Your task to perform on an android device: turn off translation in the chrome app Image 0: 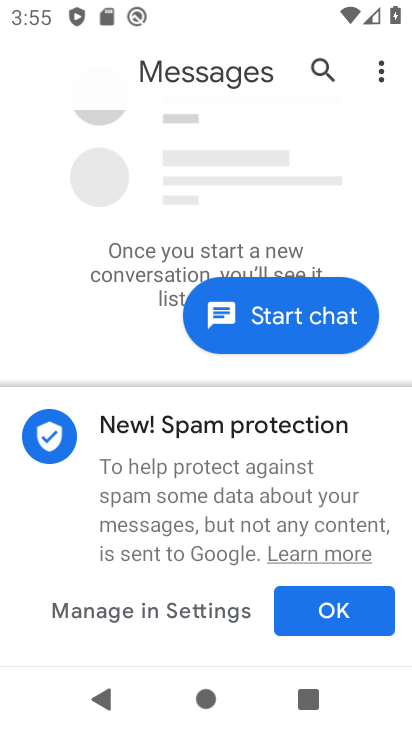
Step 0: press home button
Your task to perform on an android device: turn off translation in the chrome app Image 1: 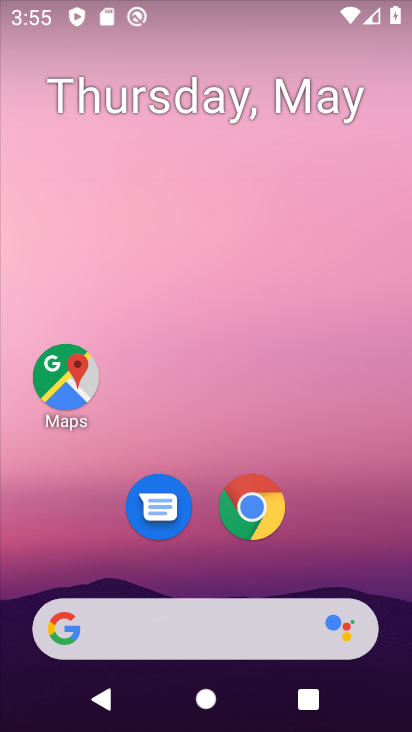
Step 1: click (258, 510)
Your task to perform on an android device: turn off translation in the chrome app Image 2: 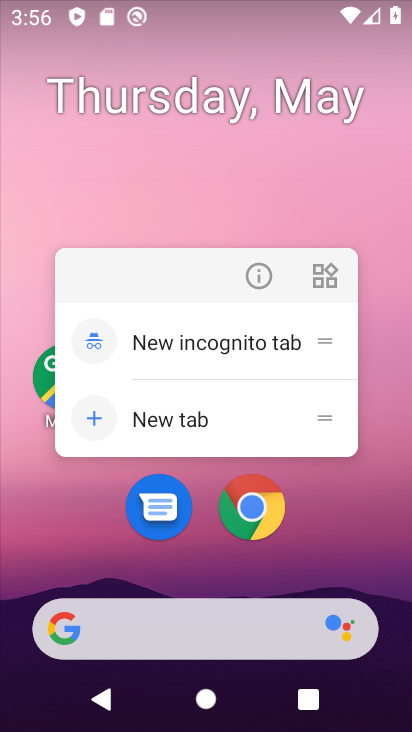
Step 2: click (248, 499)
Your task to perform on an android device: turn off translation in the chrome app Image 3: 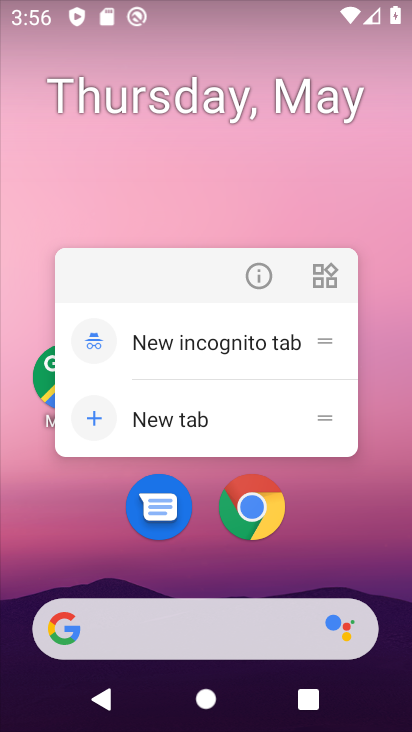
Step 3: click (248, 496)
Your task to perform on an android device: turn off translation in the chrome app Image 4: 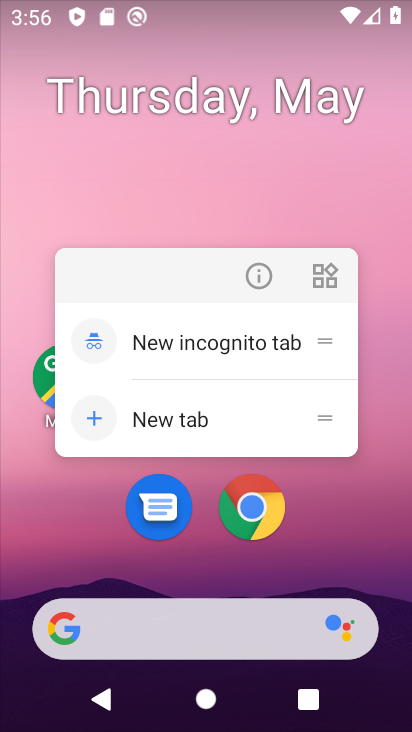
Step 4: click (245, 506)
Your task to perform on an android device: turn off translation in the chrome app Image 5: 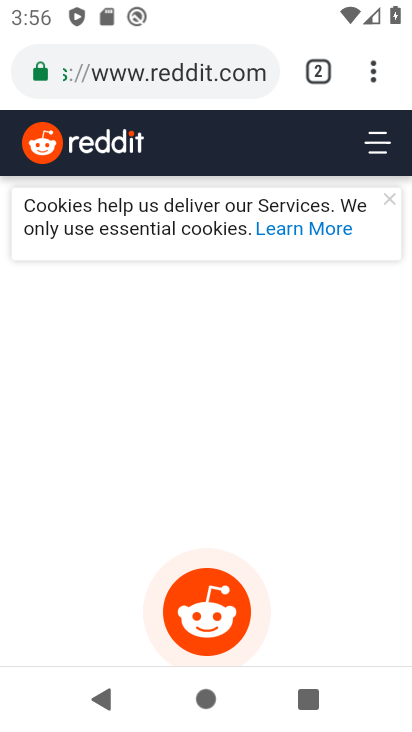
Step 5: click (370, 79)
Your task to perform on an android device: turn off translation in the chrome app Image 6: 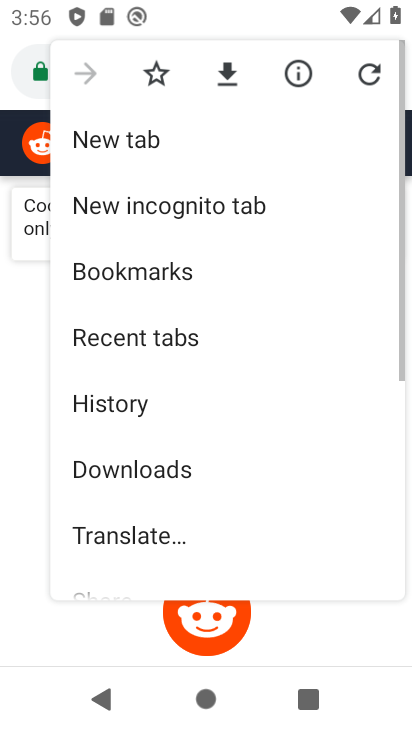
Step 6: drag from (151, 507) to (164, 164)
Your task to perform on an android device: turn off translation in the chrome app Image 7: 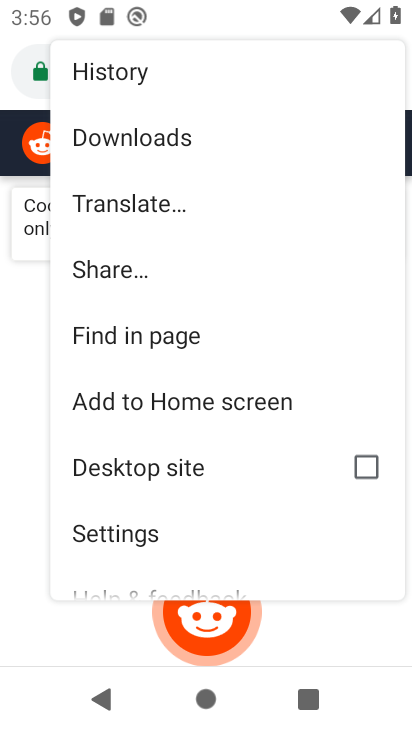
Step 7: click (109, 530)
Your task to perform on an android device: turn off translation in the chrome app Image 8: 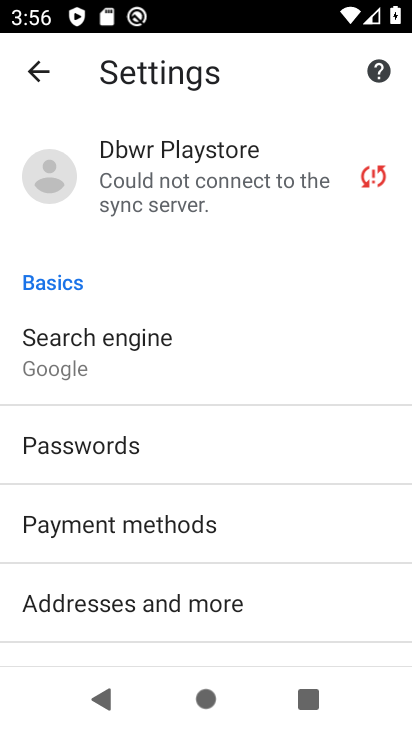
Step 8: drag from (150, 573) to (142, 325)
Your task to perform on an android device: turn off translation in the chrome app Image 9: 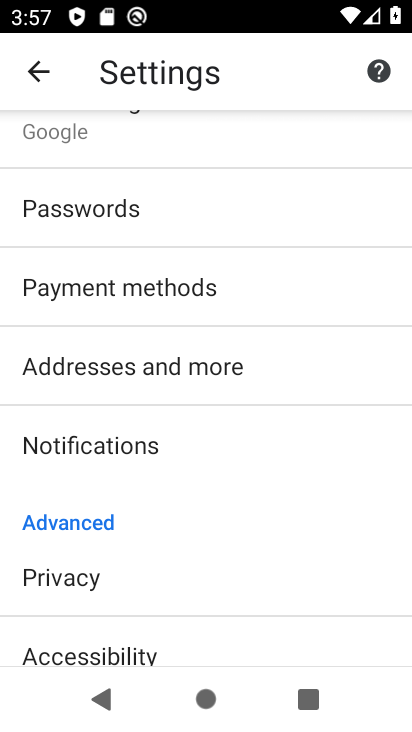
Step 9: drag from (169, 617) to (183, 306)
Your task to perform on an android device: turn off translation in the chrome app Image 10: 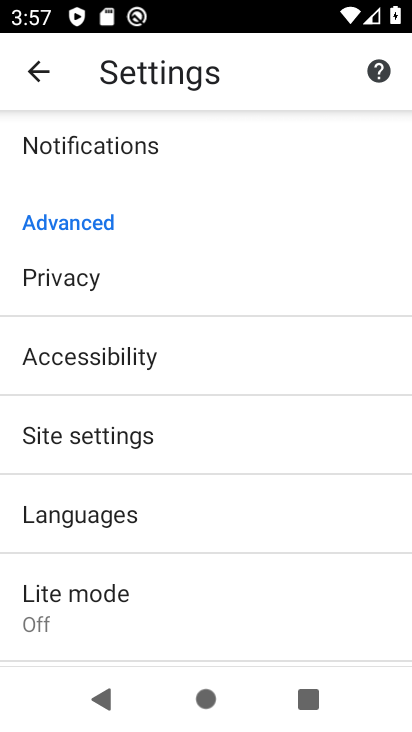
Step 10: click (130, 527)
Your task to perform on an android device: turn off translation in the chrome app Image 11: 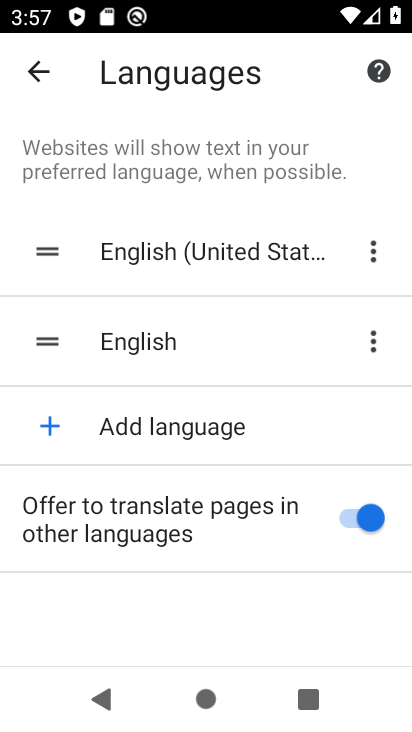
Step 11: click (355, 517)
Your task to perform on an android device: turn off translation in the chrome app Image 12: 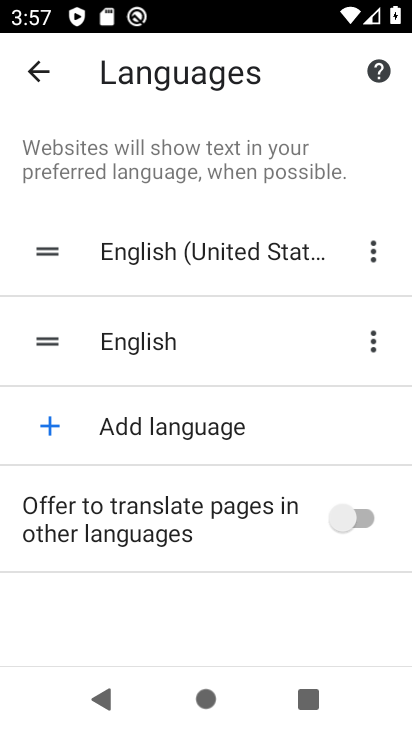
Step 12: task complete